Your task to perform on an android device: open a new tab in the chrome app Image 0: 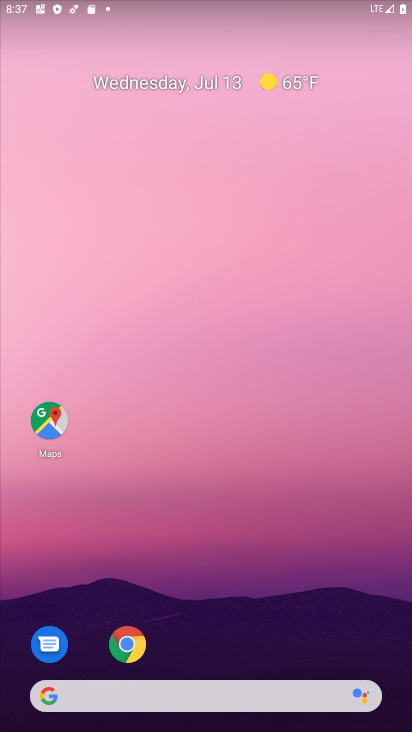
Step 0: drag from (321, 587) to (180, 153)
Your task to perform on an android device: open a new tab in the chrome app Image 1: 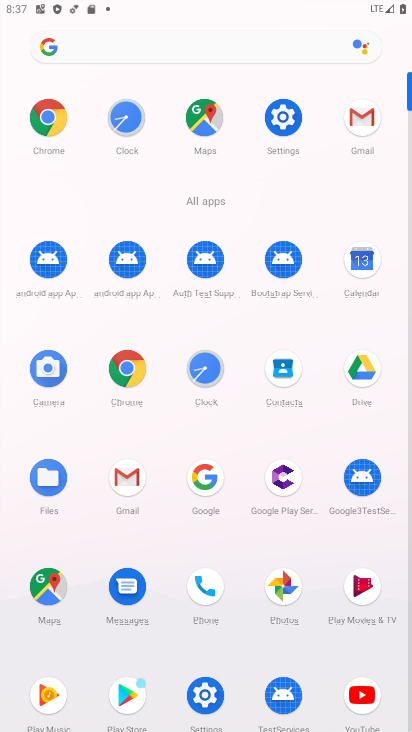
Step 1: click (49, 129)
Your task to perform on an android device: open a new tab in the chrome app Image 2: 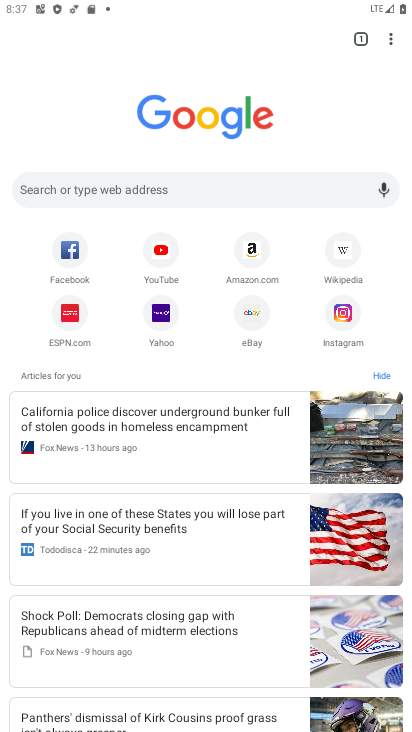
Step 2: task complete